Your task to perform on an android device: add a contact Image 0: 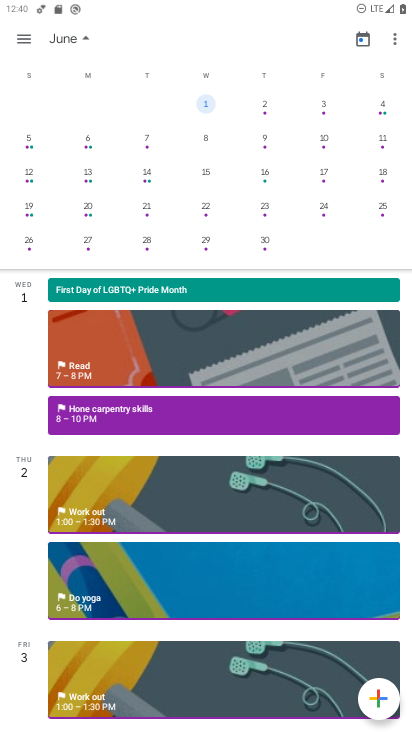
Step 0: drag from (214, 563) to (348, 309)
Your task to perform on an android device: add a contact Image 1: 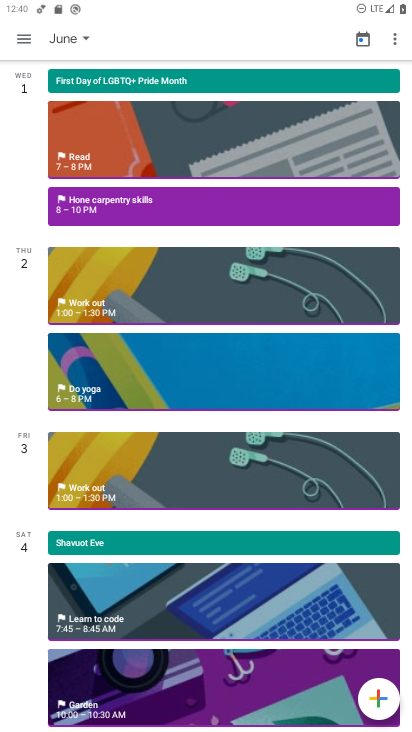
Step 1: press home button
Your task to perform on an android device: add a contact Image 2: 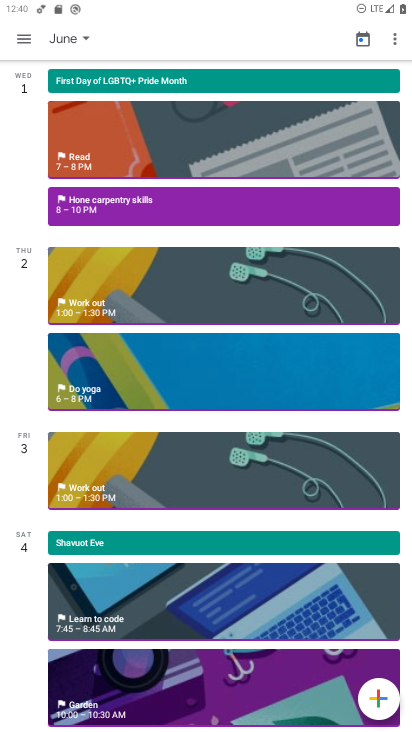
Step 2: drag from (329, 205) to (337, 64)
Your task to perform on an android device: add a contact Image 3: 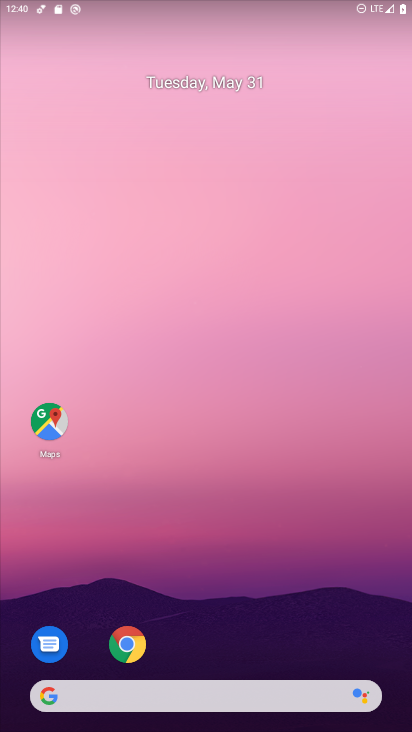
Step 3: drag from (229, 594) to (221, 12)
Your task to perform on an android device: add a contact Image 4: 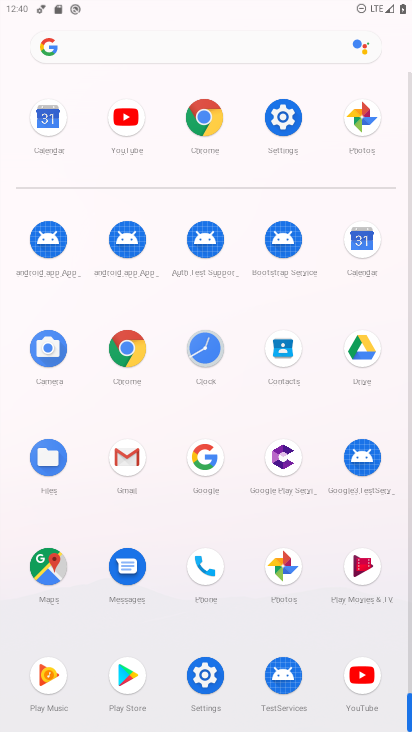
Step 4: click (273, 345)
Your task to perform on an android device: add a contact Image 5: 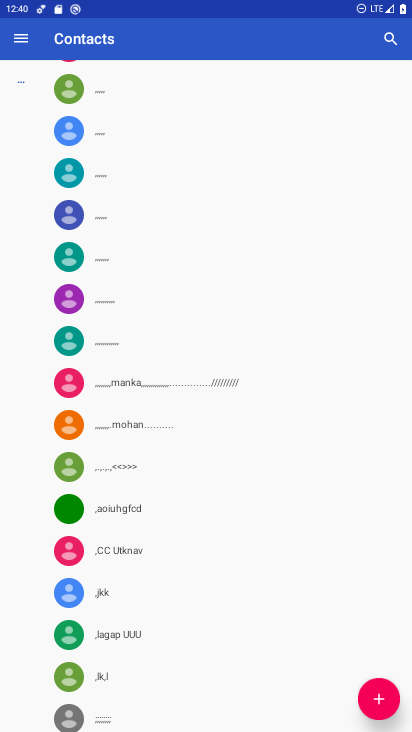
Step 5: drag from (202, 602) to (317, 247)
Your task to perform on an android device: add a contact Image 6: 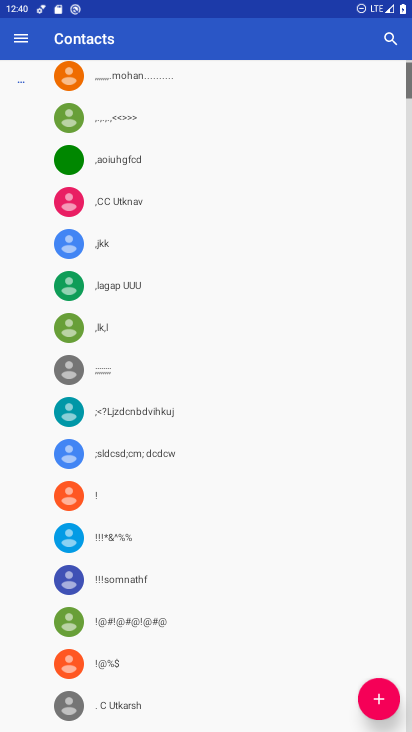
Step 6: drag from (347, 156) to (269, 723)
Your task to perform on an android device: add a contact Image 7: 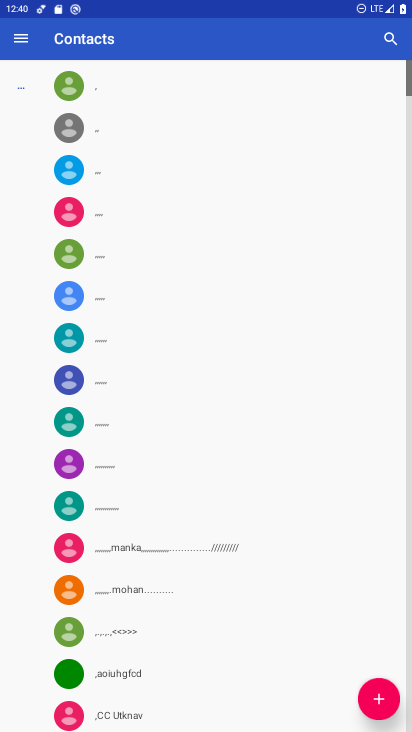
Step 7: click (374, 705)
Your task to perform on an android device: add a contact Image 8: 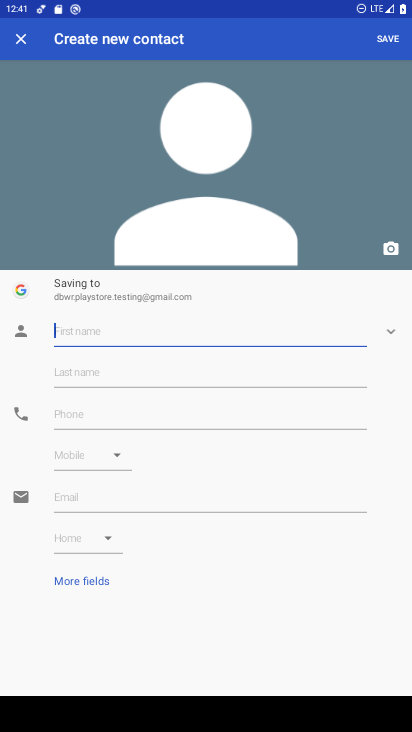
Step 8: type "bhb"
Your task to perform on an android device: add a contact Image 9: 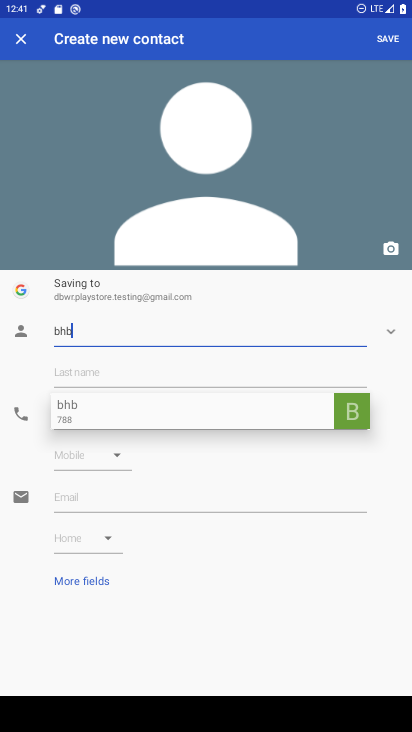
Step 9: click (391, 45)
Your task to perform on an android device: add a contact Image 10: 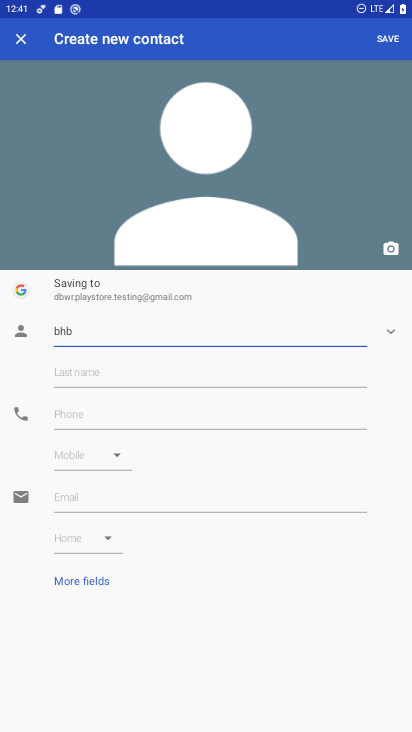
Step 10: task complete